Your task to perform on an android device: open app "Airtel Thanks" (install if not already installed), go to login, and select forgot password Image 0: 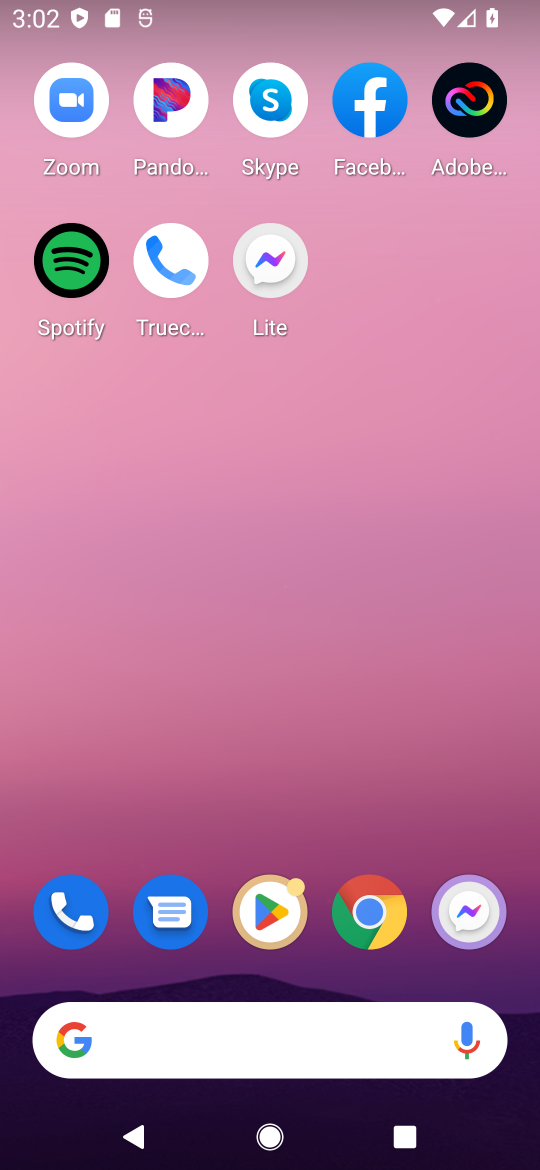
Step 0: drag from (170, 1028) to (286, 335)
Your task to perform on an android device: open app "Airtel Thanks" (install if not already installed), go to login, and select forgot password Image 1: 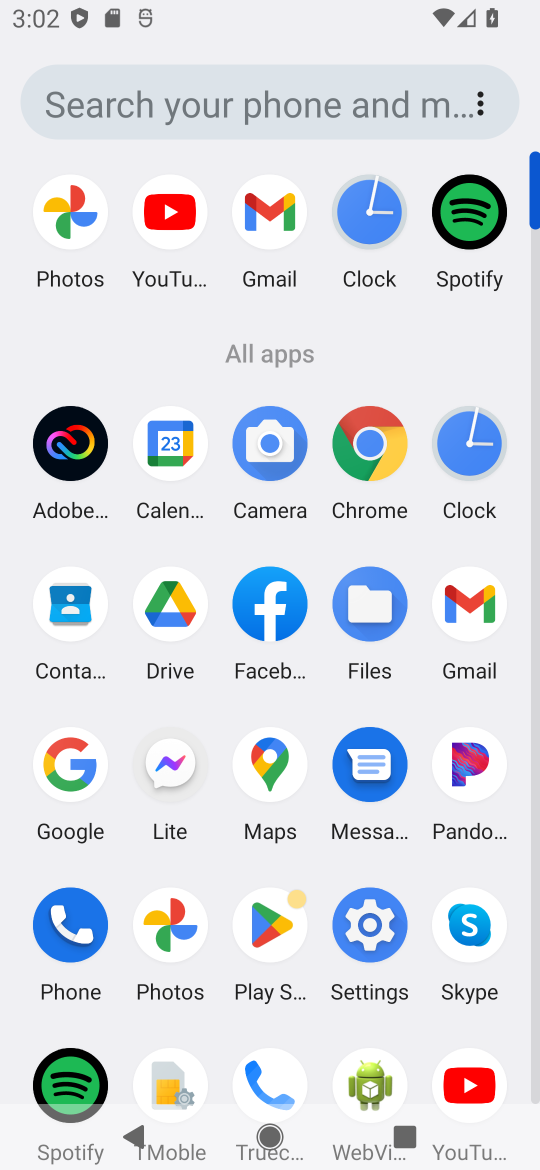
Step 1: drag from (211, 847) to (230, 407)
Your task to perform on an android device: open app "Airtel Thanks" (install if not already installed), go to login, and select forgot password Image 2: 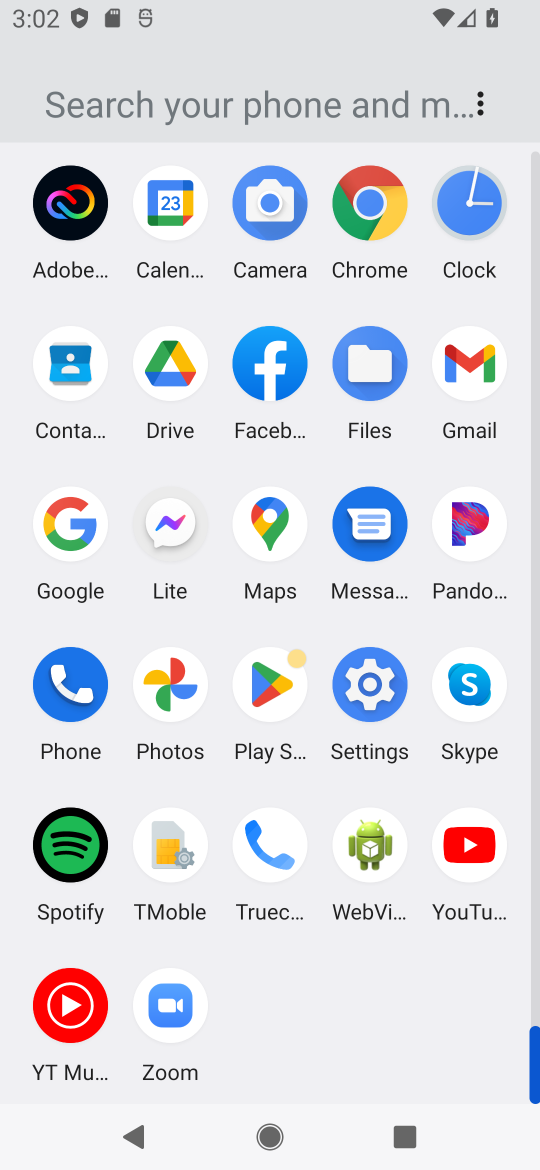
Step 2: click (278, 688)
Your task to perform on an android device: open app "Airtel Thanks" (install if not already installed), go to login, and select forgot password Image 3: 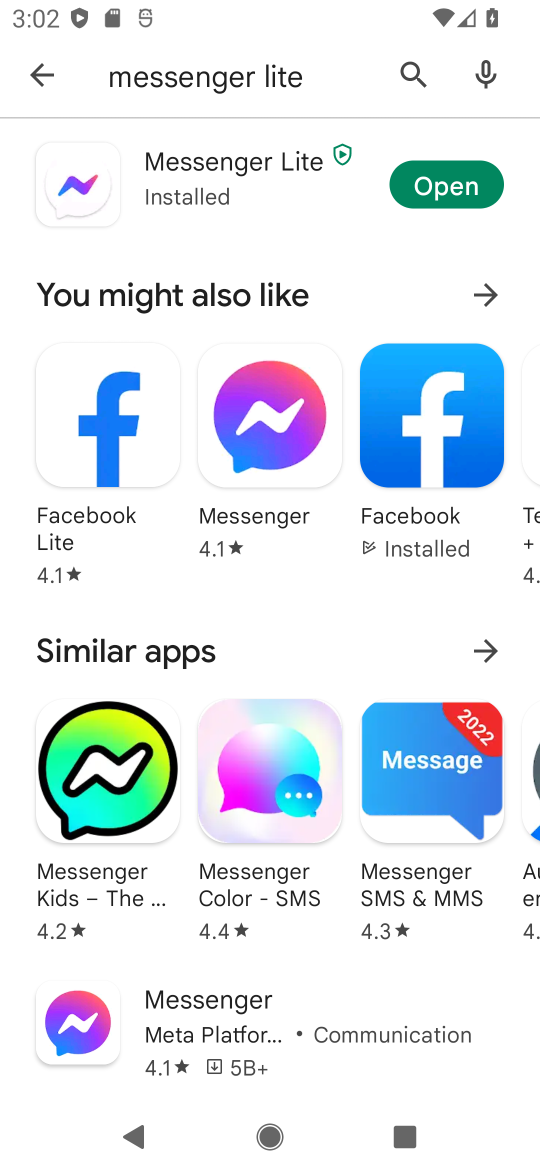
Step 3: press back button
Your task to perform on an android device: open app "Airtel Thanks" (install if not already installed), go to login, and select forgot password Image 4: 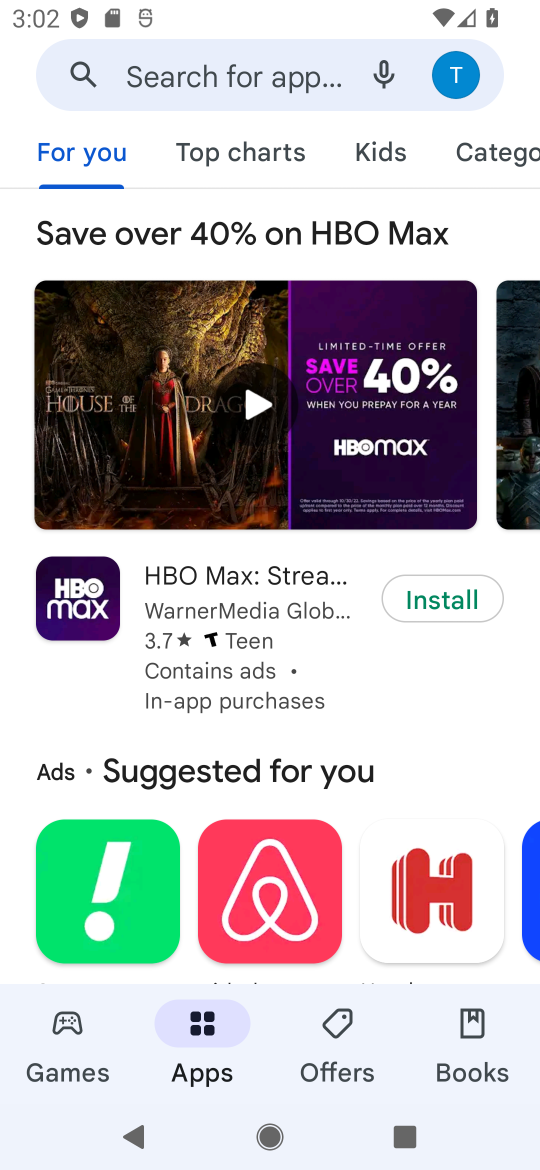
Step 4: click (258, 77)
Your task to perform on an android device: open app "Airtel Thanks" (install if not already installed), go to login, and select forgot password Image 5: 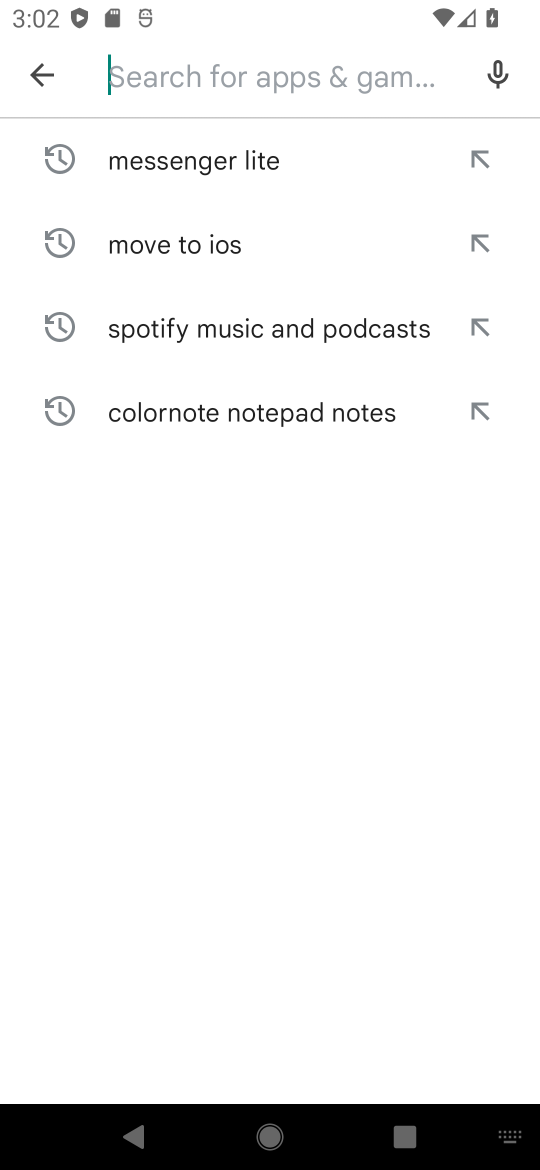
Step 5: type "Airtel Thanks"
Your task to perform on an android device: open app "Airtel Thanks" (install if not already installed), go to login, and select forgot password Image 6: 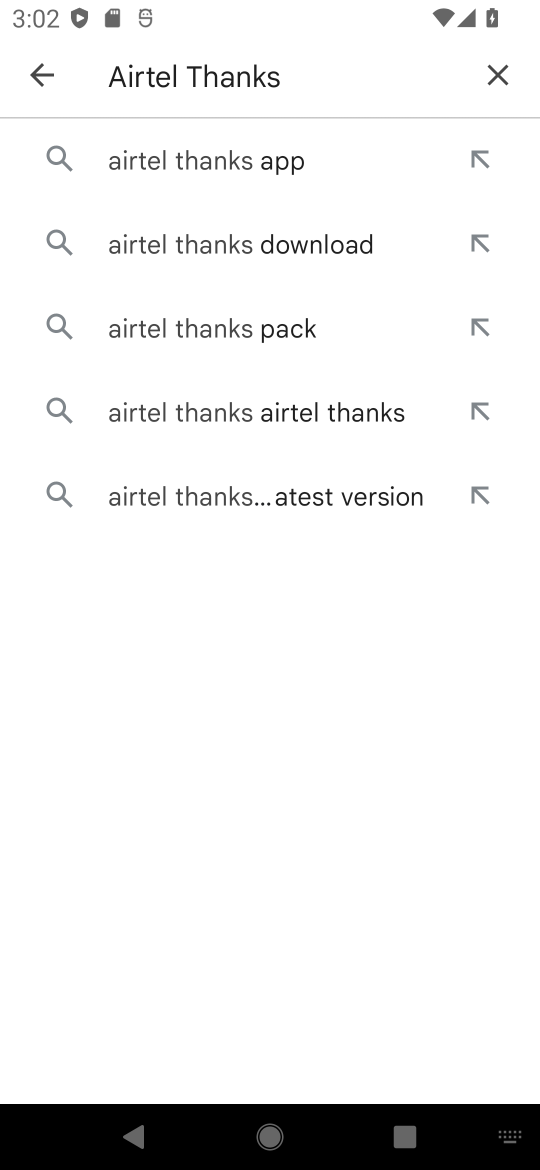
Step 6: click (252, 163)
Your task to perform on an android device: open app "Airtel Thanks" (install if not already installed), go to login, and select forgot password Image 7: 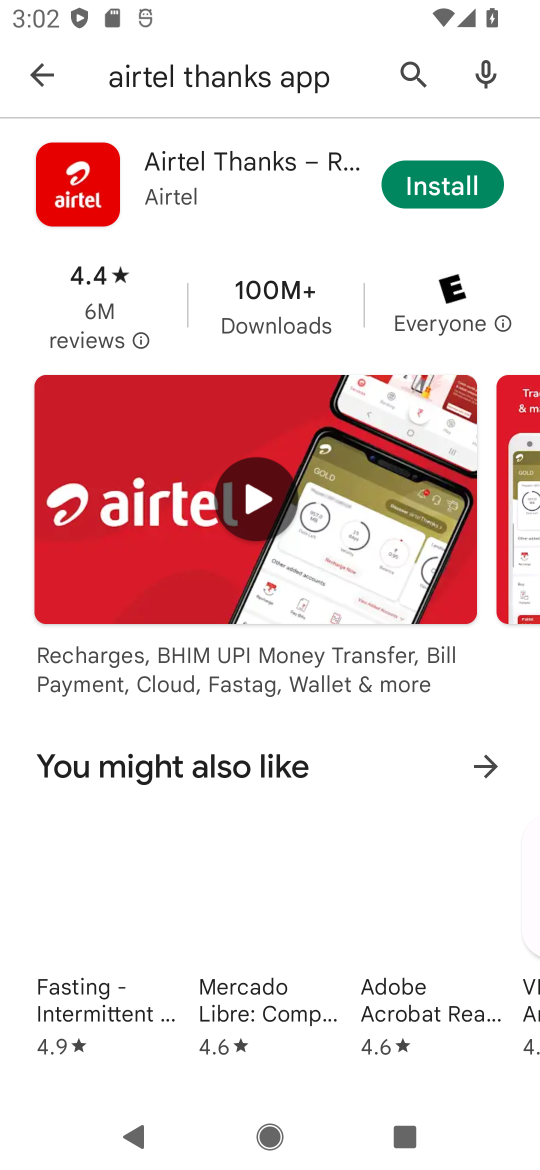
Step 7: click (426, 185)
Your task to perform on an android device: open app "Airtel Thanks" (install if not already installed), go to login, and select forgot password Image 8: 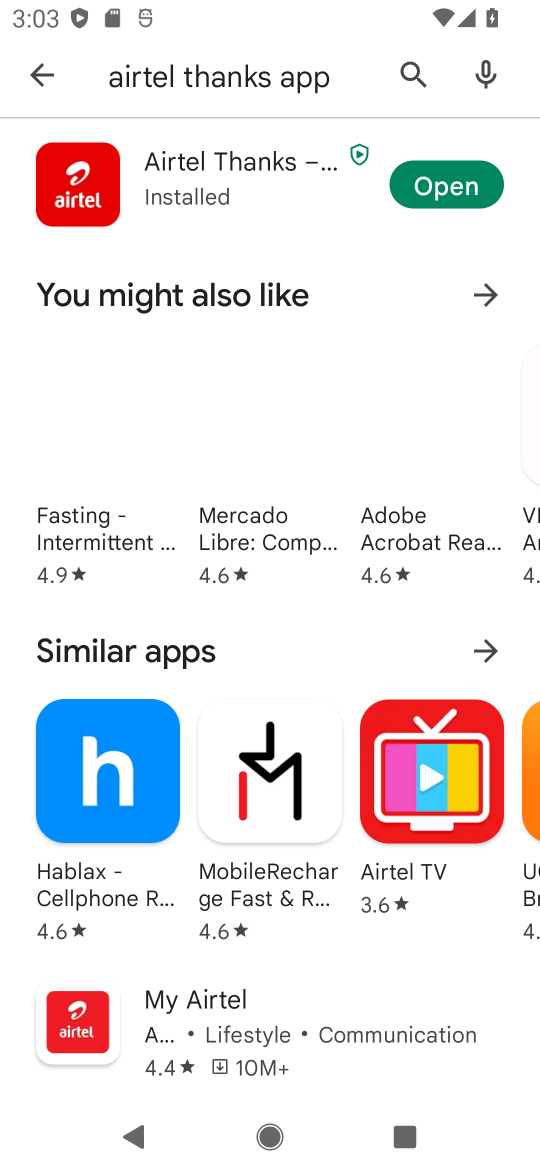
Step 8: click (426, 202)
Your task to perform on an android device: open app "Airtel Thanks" (install if not already installed), go to login, and select forgot password Image 9: 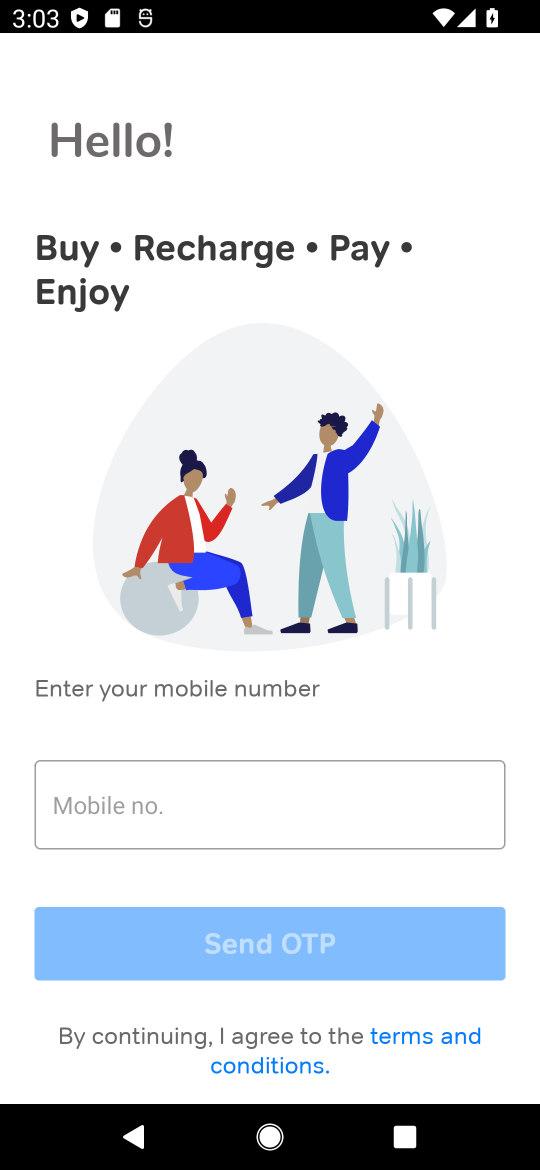
Step 9: click (104, 1041)
Your task to perform on an android device: open app "Airtel Thanks" (install if not already installed), go to login, and select forgot password Image 10: 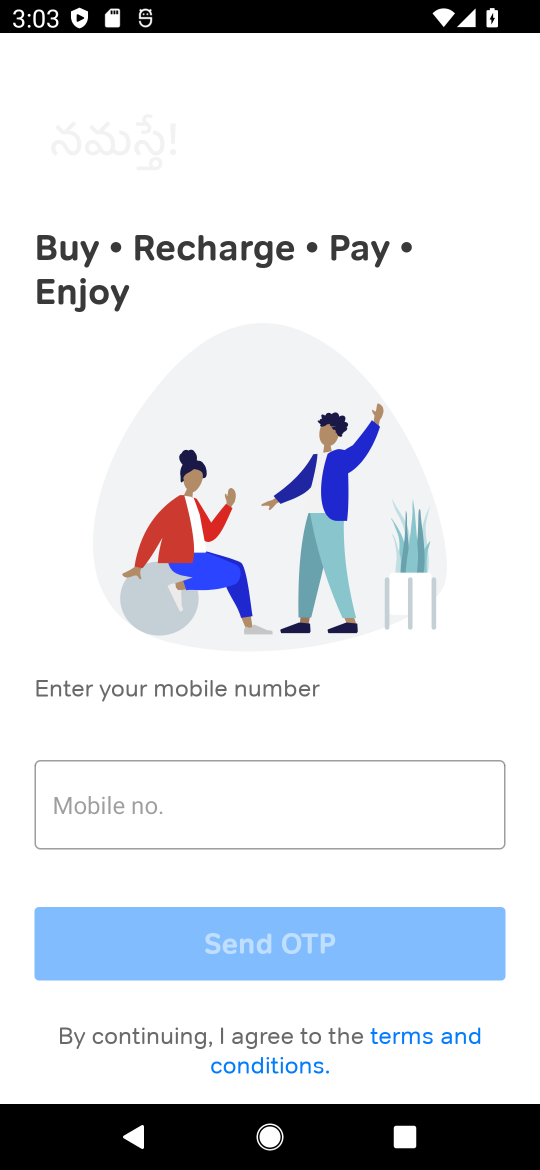
Step 10: task complete